Your task to perform on an android device: Go to calendar. Show me events next week Image 0: 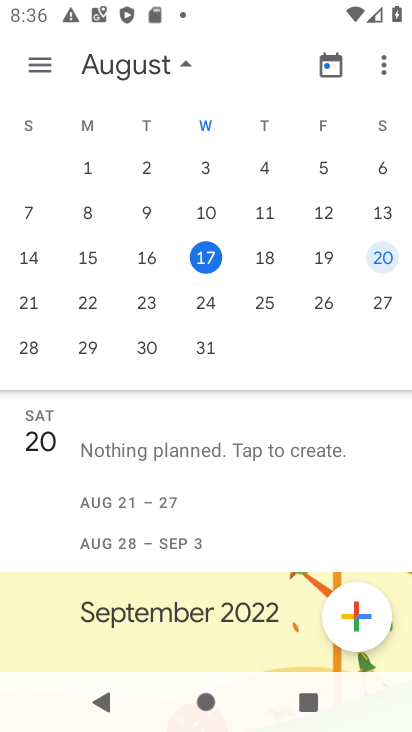
Step 0: click (47, 53)
Your task to perform on an android device: Go to calendar. Show me events next week Image 1: 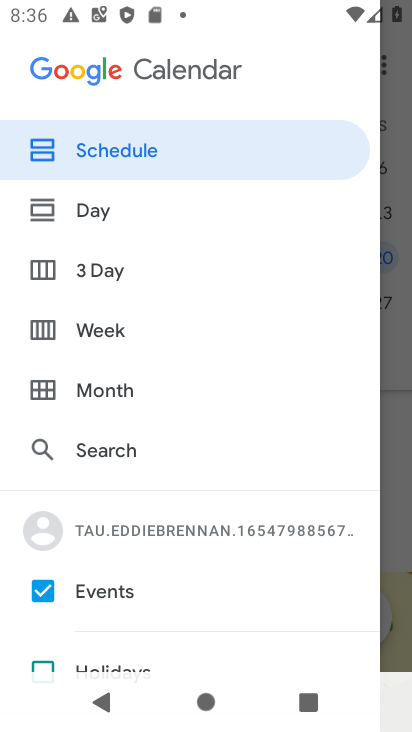
Step 1: click (104, 338)
Your task to perform on an android device: Go to calendar. Show me events next week Image 2: 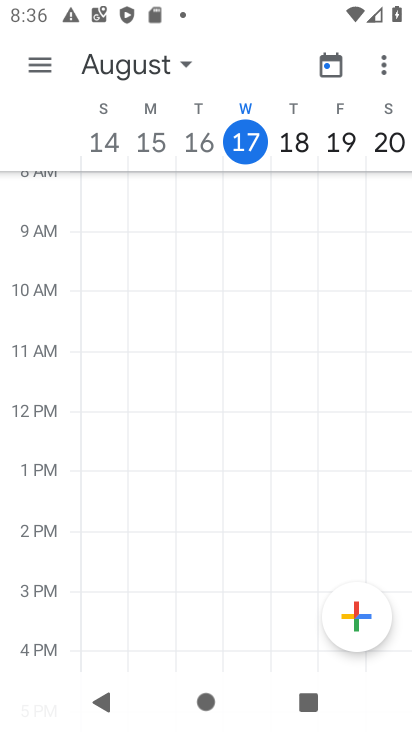
Step 2: click (152, 52)
Your task to perform on an android device: Go to calendar. Show me events next week Image 3: 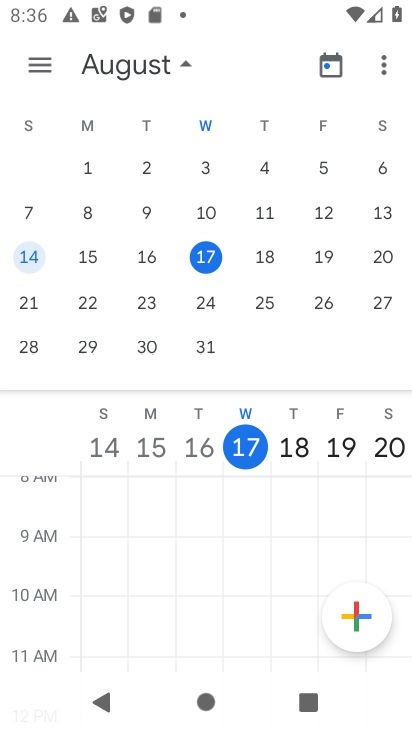
Step 3: click (206, 311)
Your task to perform on an android device: Go to calendar. Show me events next week Image 4: 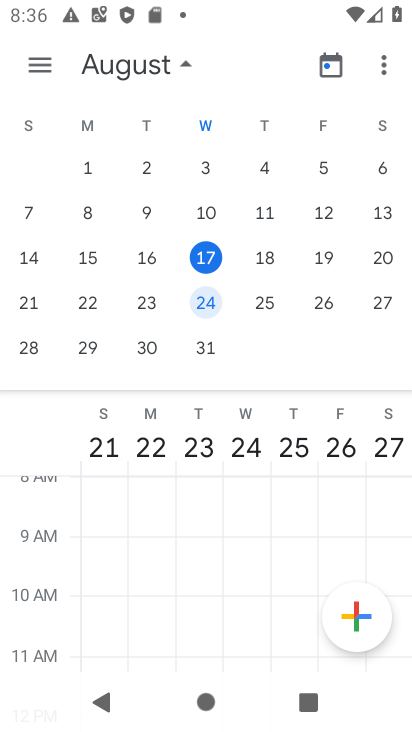
Step 4: task complete